Your task to perform on an android device: Open location settings Image 0: 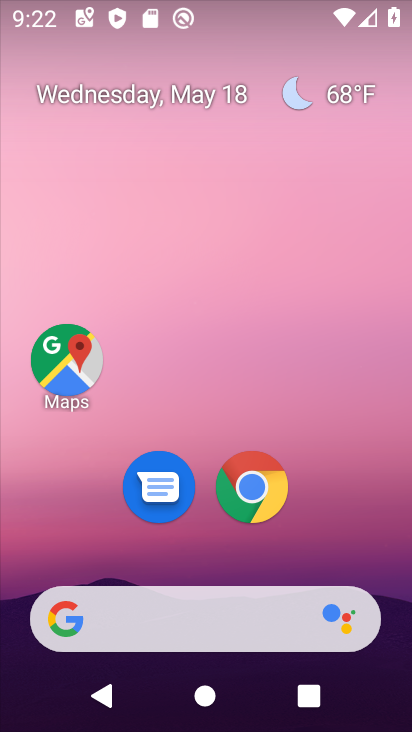
Step 0: drag from (340, 507) to (300, 143)
Your task to perform on an android device: Open location settings Image 1: 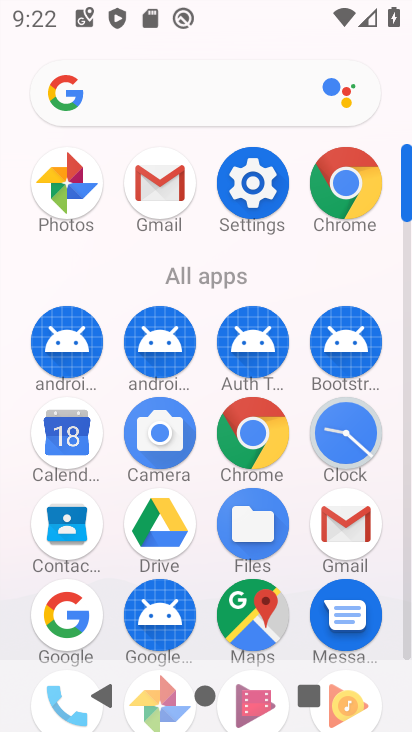
Step 1: click (265, 210)
Your task to perform on an android device: Open location settings Image 2: 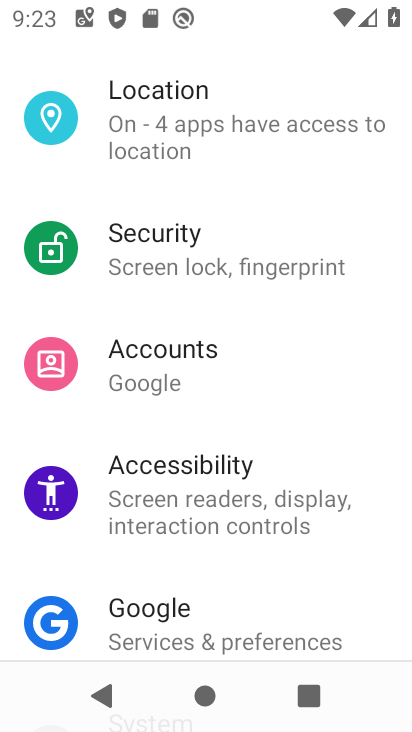
Step 2: click (203, 133)
Your task to perform on an android device: Open location settings Image 3: 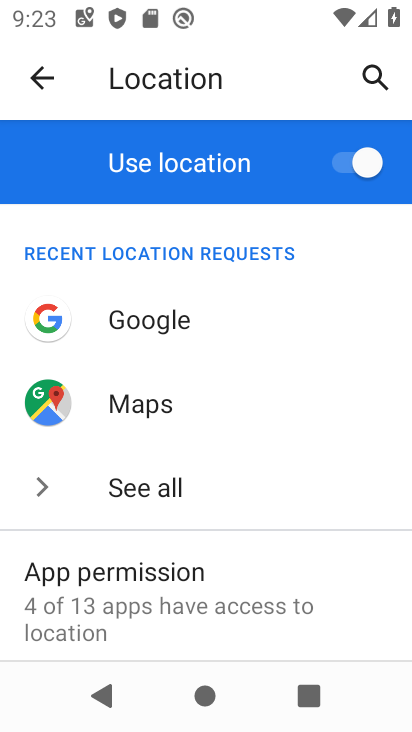
Step 3: task complete